Your task to perform on an android device: open a bookmark in the chrome app Image 0: 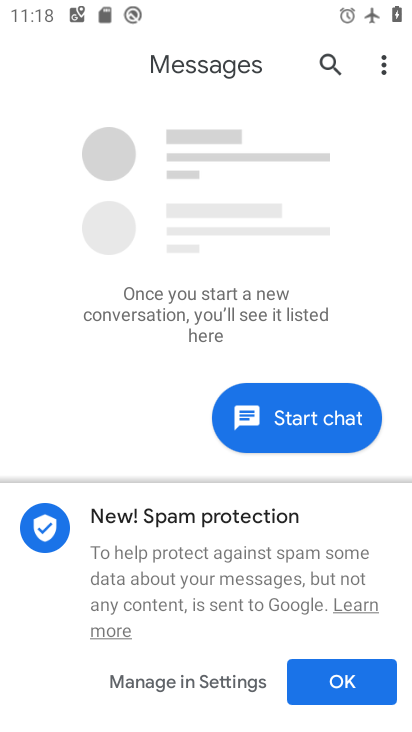
Step 0: press home button
Your task to perform on an android device: open a bookmark in the chrome app Image 1: 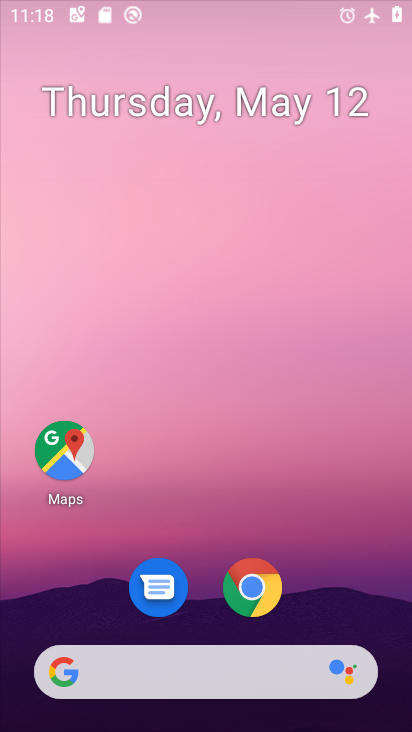
Step 1: drag from (379, 608) to (354, 3)
Your task to perform on an android device: open a bookmark in the chrome app Image 2: 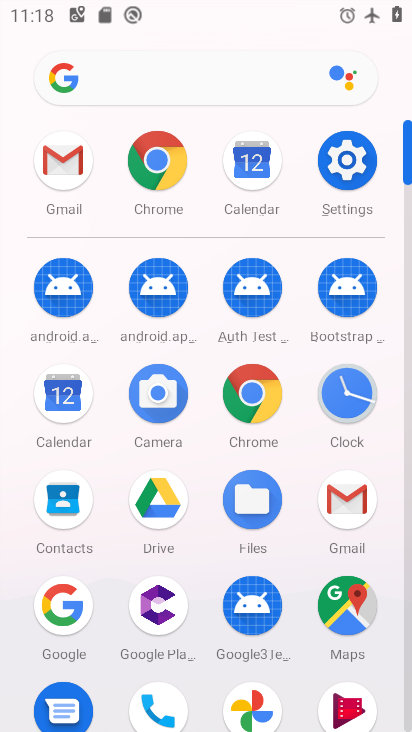
Step 2: click (254, 386)
Your task to perform on an android device: open a bookmark in the chrome app Image 3: 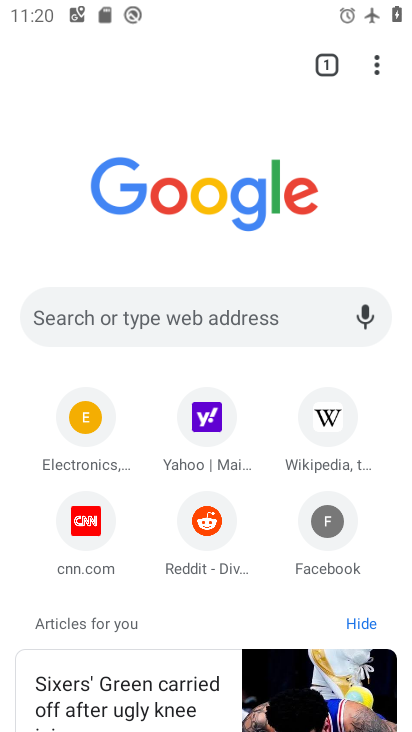
Step 3: click (377, 62)
Your task to perform on an android device: open a bookmark in the chrome app Image 4: 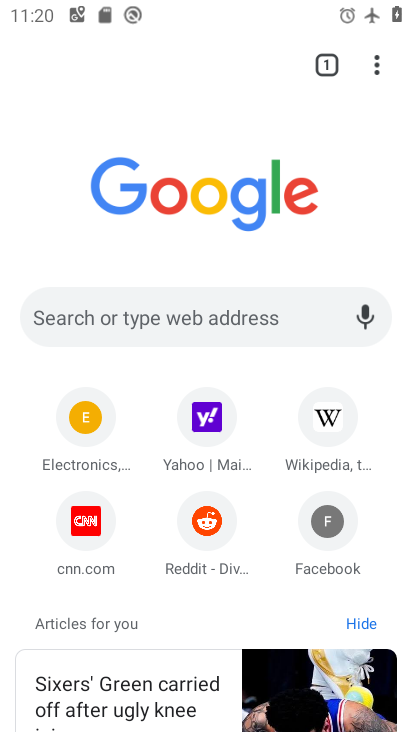
Step 4: click (377, 62)
Your task to perform on an android device: open a bookmark in the chrome app Image 5: 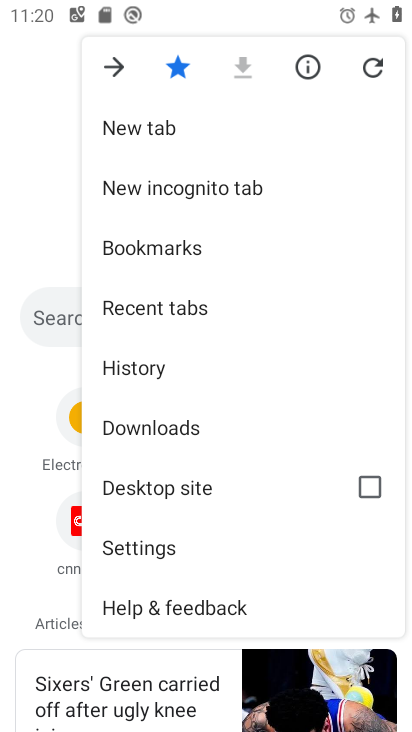
Step 5: click (235, 244)
Your task to perform on an android device: open a bookmark in the chrome app Image 6: 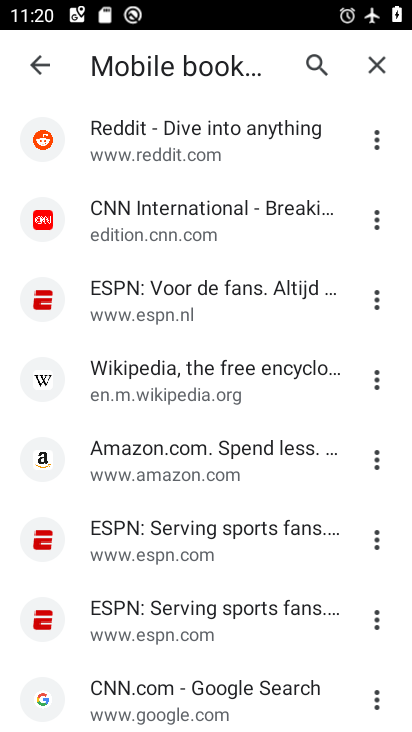
Step 6: task complete